Your task to perform on an android device: choose inbox layout in the gmail app Image 0: 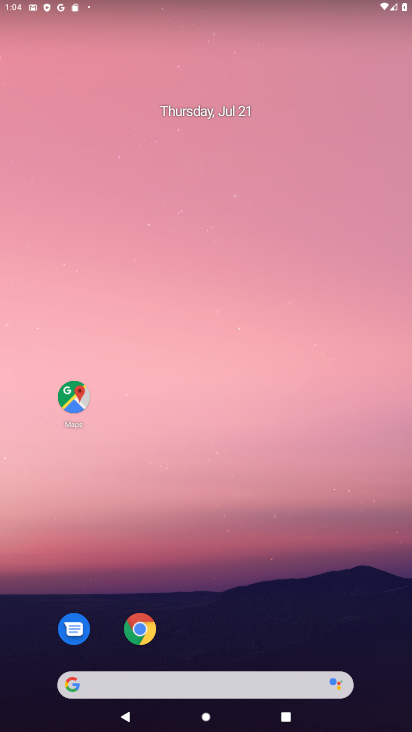
Step 0: drag from (187, 630) to (185, 119)
Your task to perform on an android device: choose inbox layout in the gmail app Image 1: 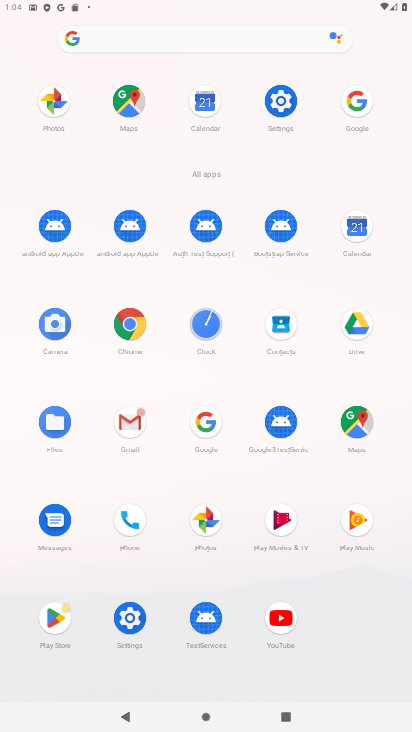
Step 1: click (127, 427)
Your task to perform on an android device: choose inbox layout in the gmail app Image 2: 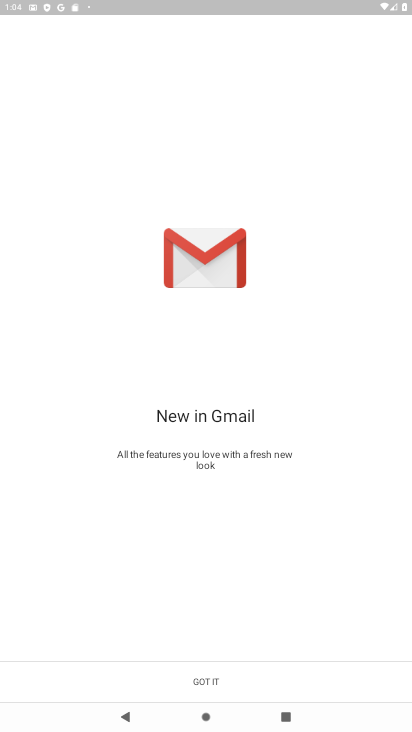
Step 2: click (206, 683)
Your task to perform on an android device: choose inbox layout in the gmail app Image 3: 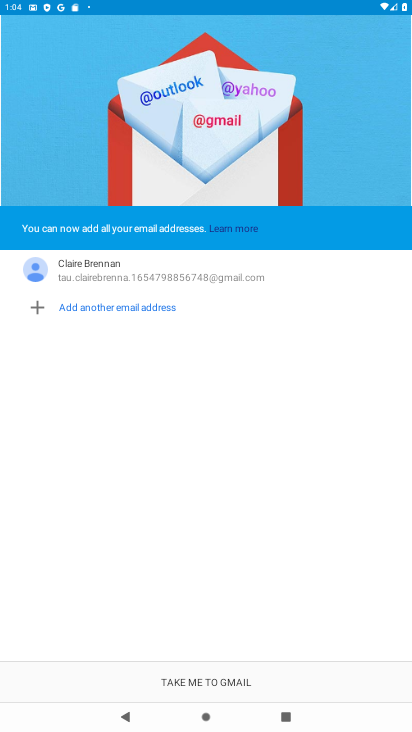
Step 3: click (211, 684)
Your task to perform on an android device: choose inbox layout in the gmail app Image 4: 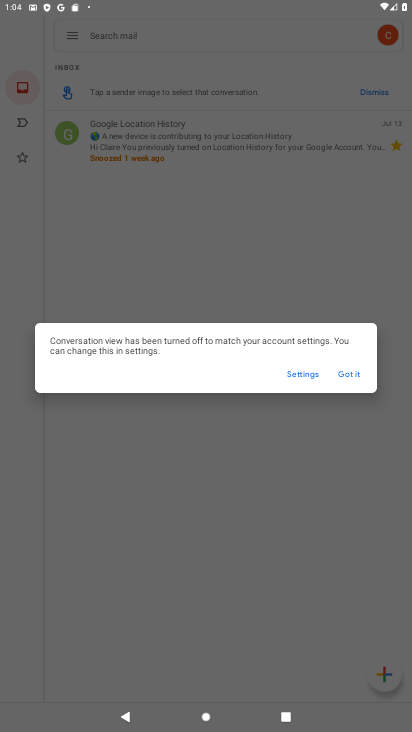
Step 4: click (303, 375)
Your task to perform on an android device: choose inbox layout in the gmail app Image 5: 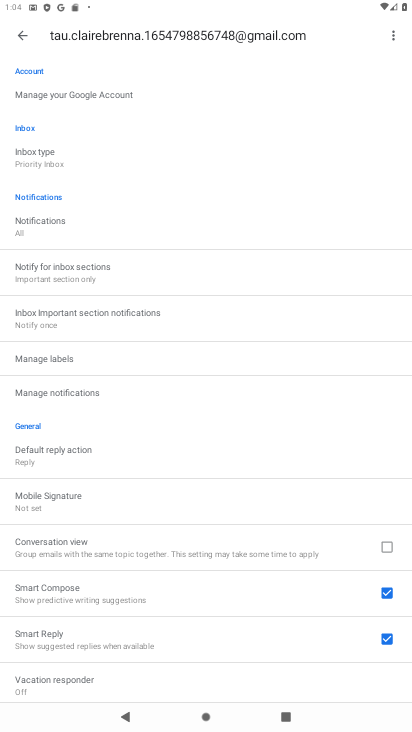
Step 5: click (56, 159)
Your task to perform on an android device: choose inbox layout in the gmail app Image 6: 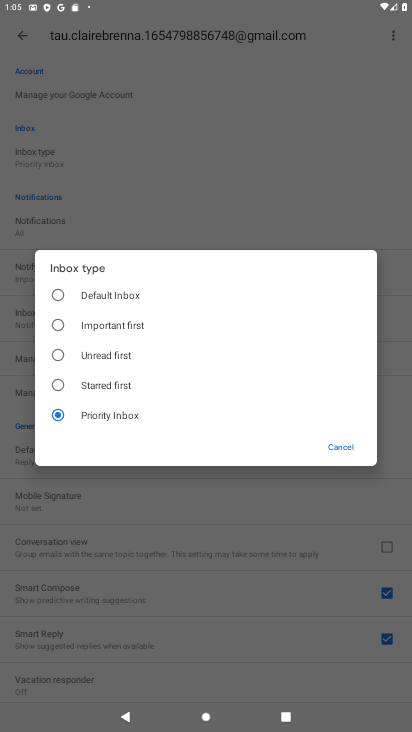
Step 6: click (57, 297)
Your task to perform on an android device: choose inbox layout in the gmail app Image 7: 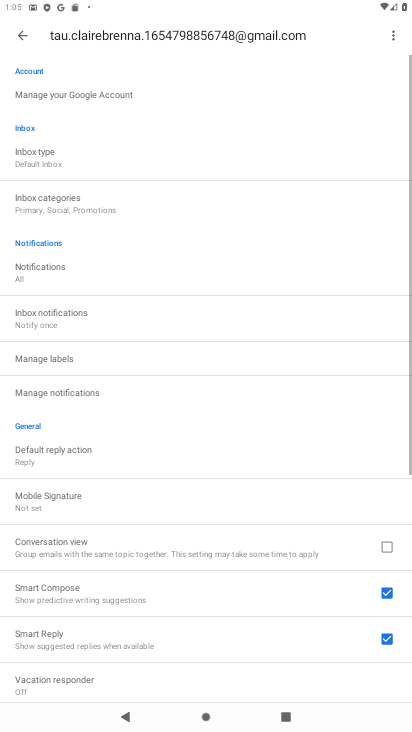
Step 7: task complete